Your task to perform on an android device: check android version Image 0: 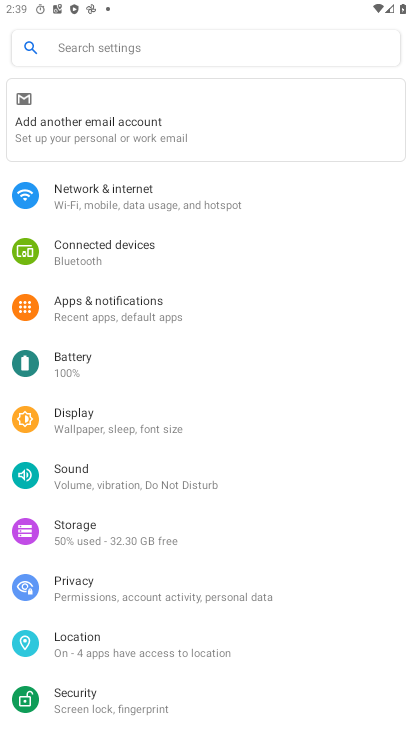
Step 0: drag from (218, 469) to (218, 38)
Your task to perform on an android device: check android version Image 1: 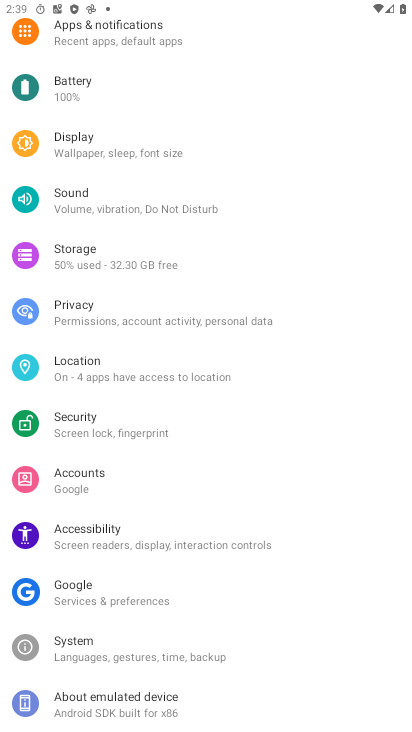
Step 1: click (167, 711)
Your task to perform on an android device: check android version Image 2: 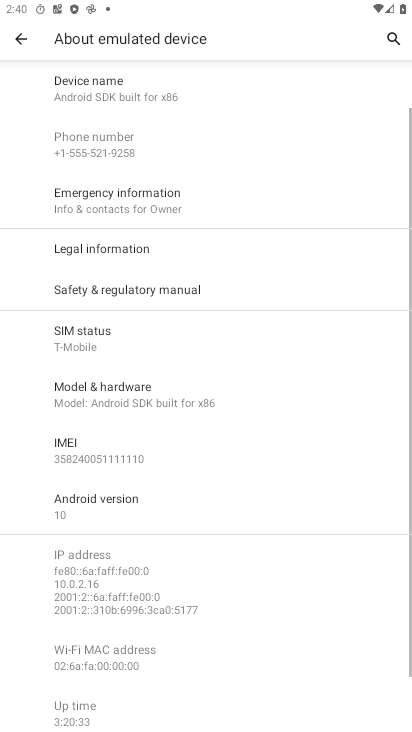
Step 2: click (126, 511)
Your task to perform on an android device: check android version Image 3: 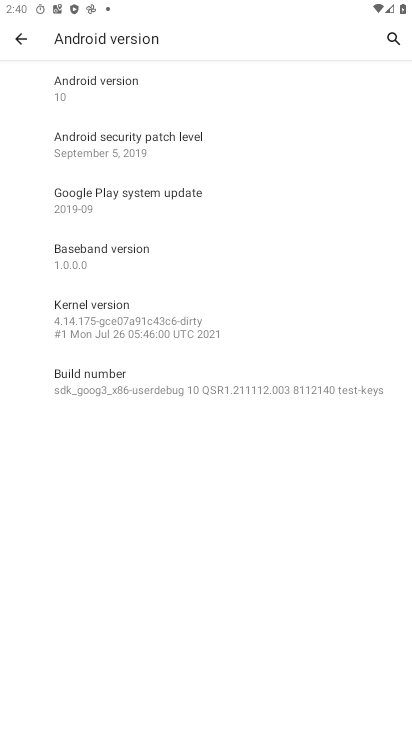
Step 3: click (145, 82)
Your task to perform on an android device: check android version Image 4: 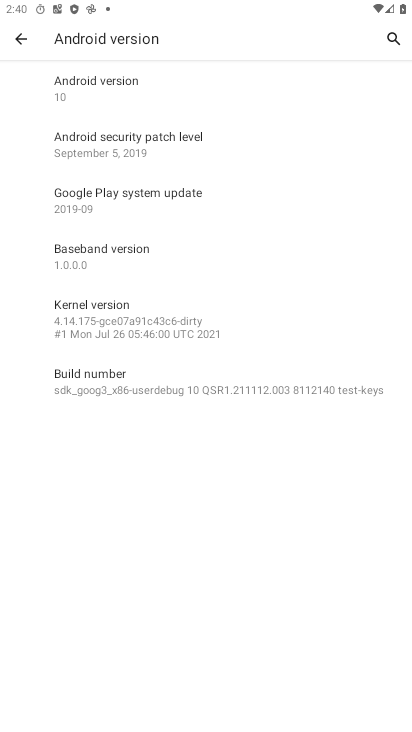
Step 4: task complete